Your task to perform on an android device: turn on location history Image 0: 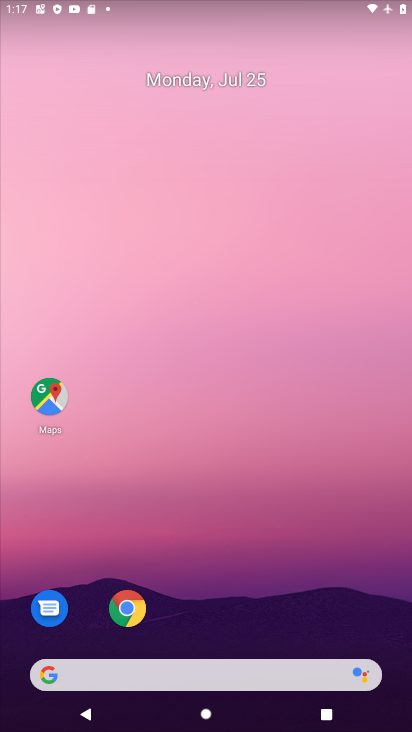
Step 0: drag from (206, 659) to (322, 216)
Your task to perform on an android device: turn on location history Image 1: 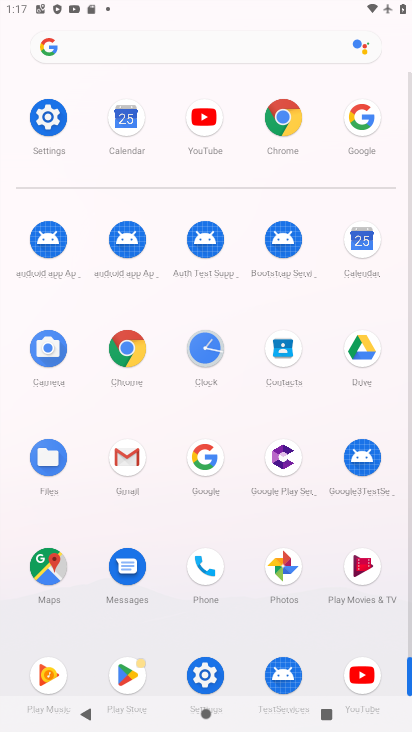
Step 1: click (40, 137)
Your task to perform on an android device: turn on location history Image 2: 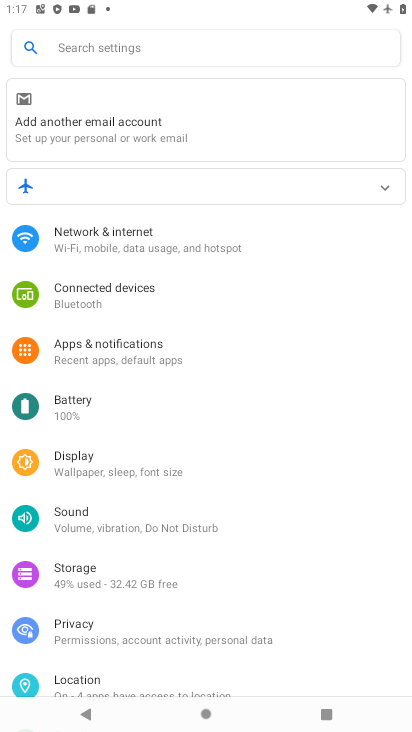
Step 2: click (119, 677)
Your task to perform on an android device: turn on location history Image 3: 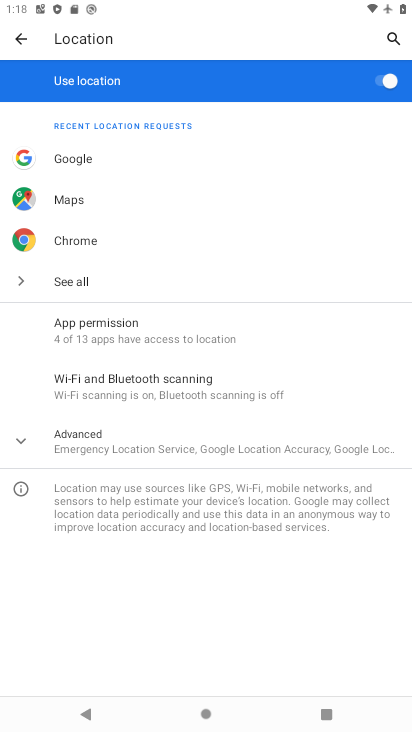
Step 3: click (155, 445)
Your task to perform on an android device: turn on location history Image 4: 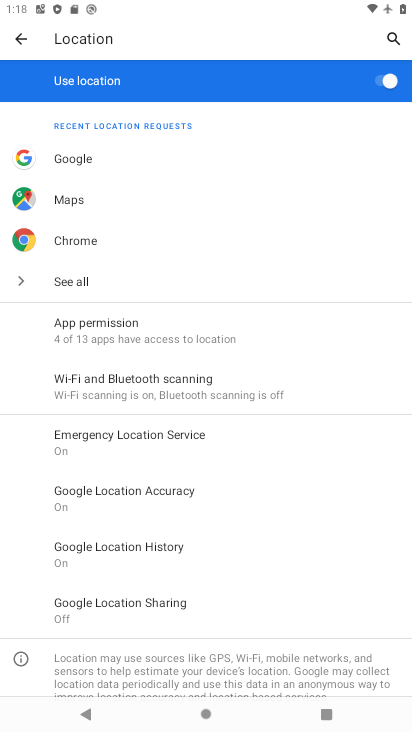
Step 4: click (148, 547)
Your task to perform on an android device: turn on location history Image 5: 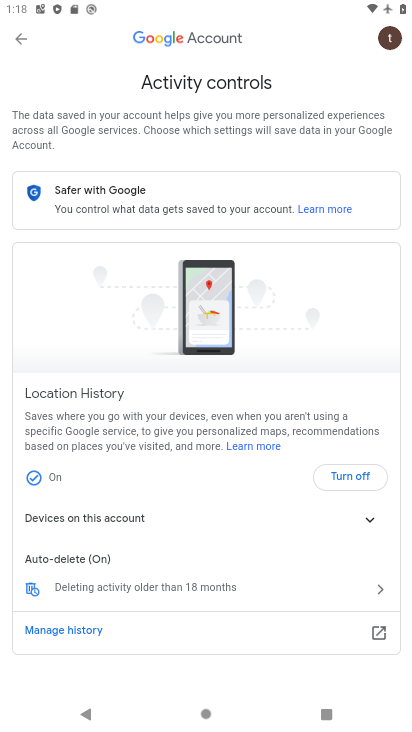
Step 5: task complete